Your task to perform on an android device: Open Chrome and go to settings Image 0: 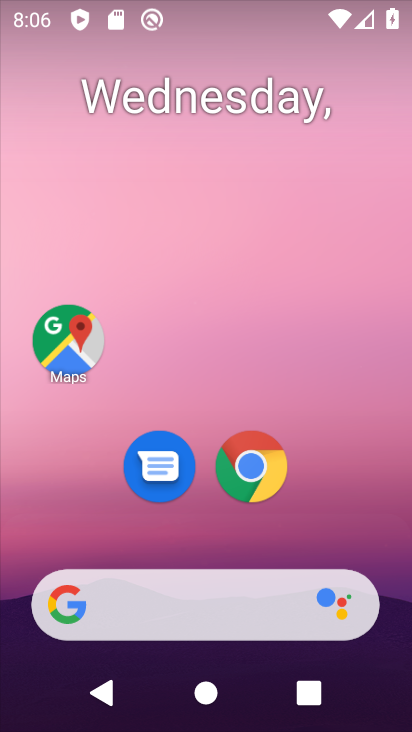
Step 0: click (253, 477)
Your task to perform on an android device: Open Chrome and go to settings Image 1: 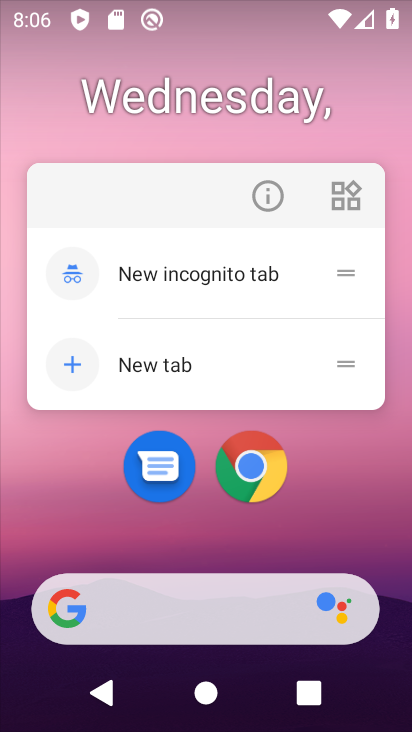
Step 1: click (253, 477)
Your task to perform on an android device: Open Chrome and go to settings Image 2: 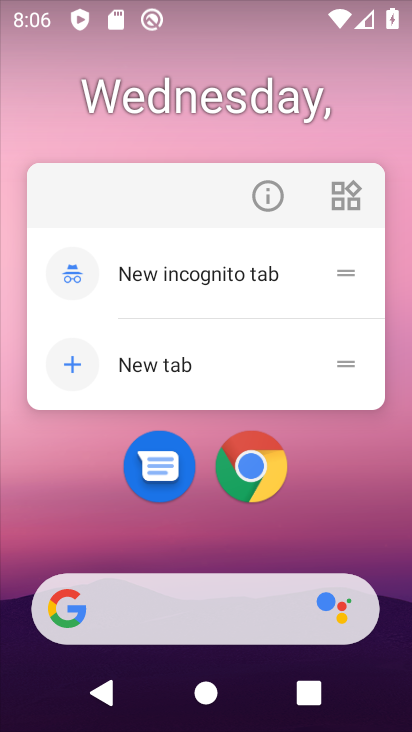
Step 2: click (253, 476)
Your task to perform on an android device: Open Chrome and go to settings Image 3: 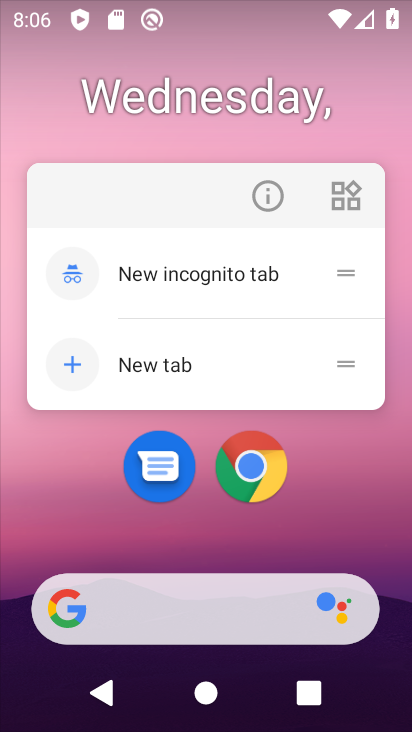
Step 3: click (233, 457)
Your task to perform on an android device: Open Chrome and go to settings Image 4: 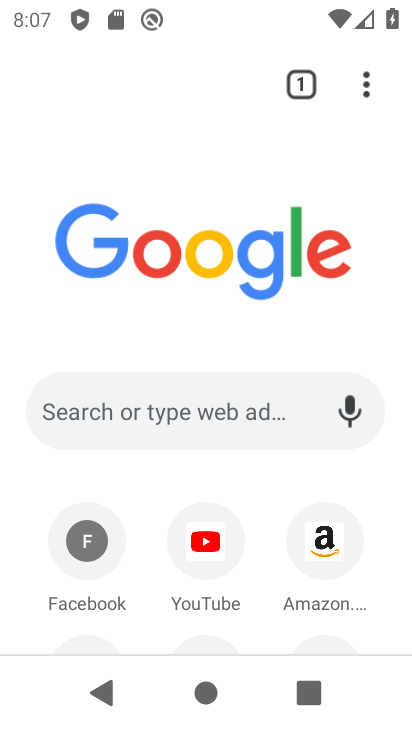
Step 4: click (367, 65)
Your task to perform on an android device: Open Chrome and go to settings Image 5: 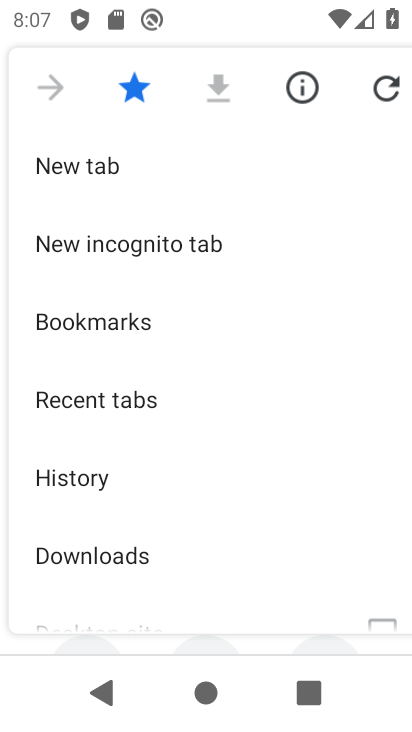
Step 5: drag from (256, 444) to (251, 259)
Your task to perform on an android device: Open Chrome and go to settings Image 6: 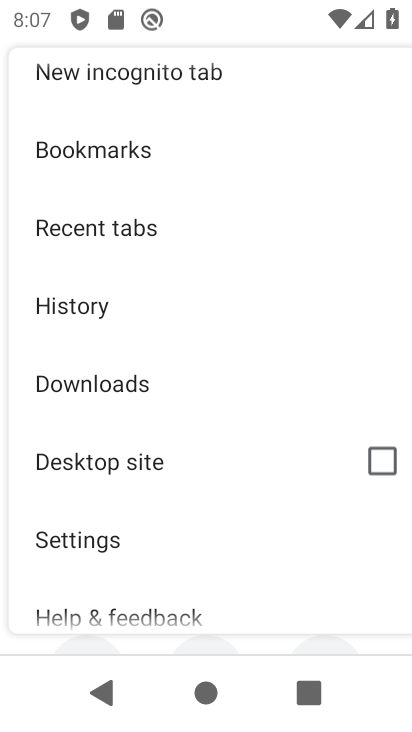
Step 6: click (133, 526)
Your task to perform on an android device: Open Chrome and go to settings Image 7: 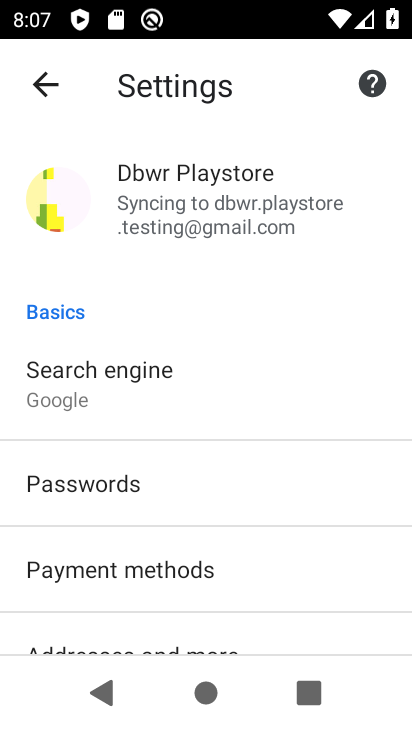
Step 7: task complete